Your task to perform on an android device: Open Chrome and go to settings Image 0: 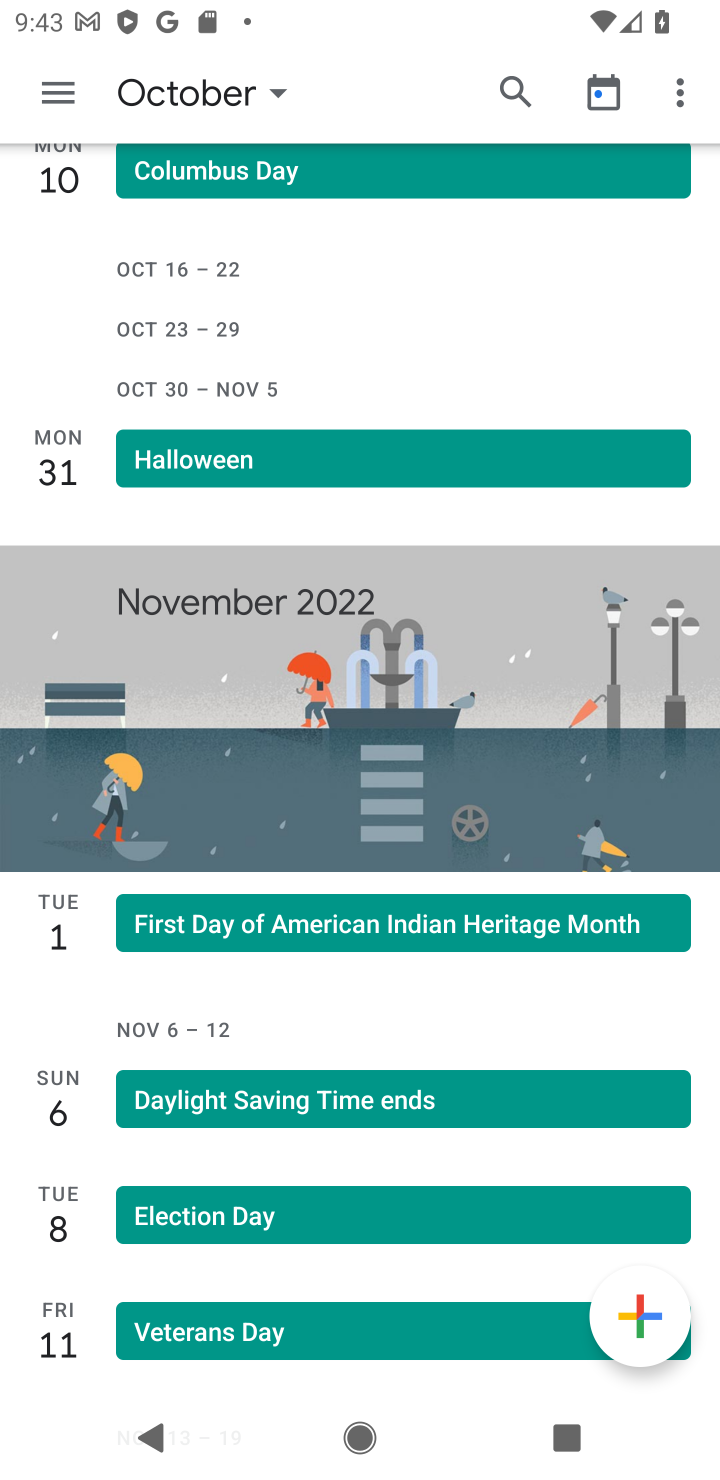
Step 0: press home button
Your task to perform on an android device: Open Chrome and go to settings Image 1: 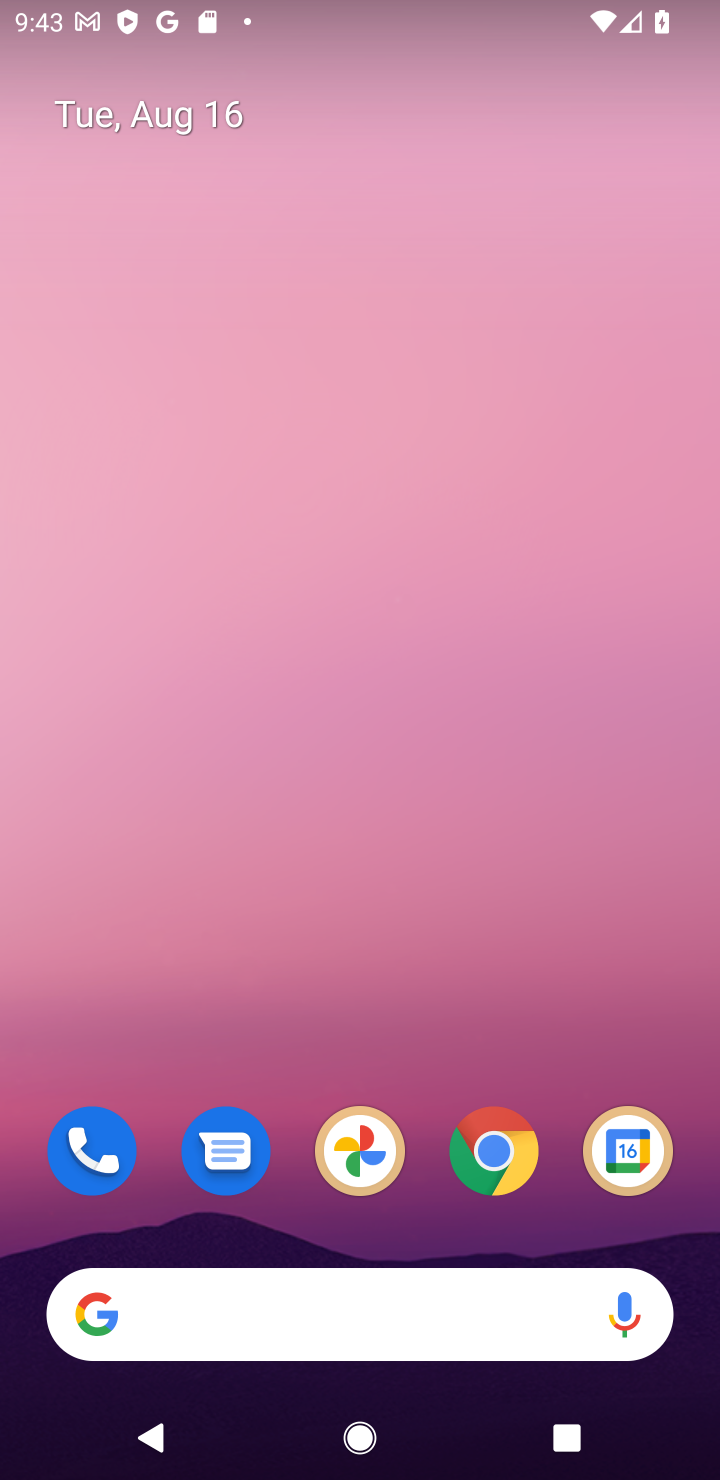
Step 1: click (501, 1172)
Your task to perform on an android device: Open Chrome and go to settings Image 2: 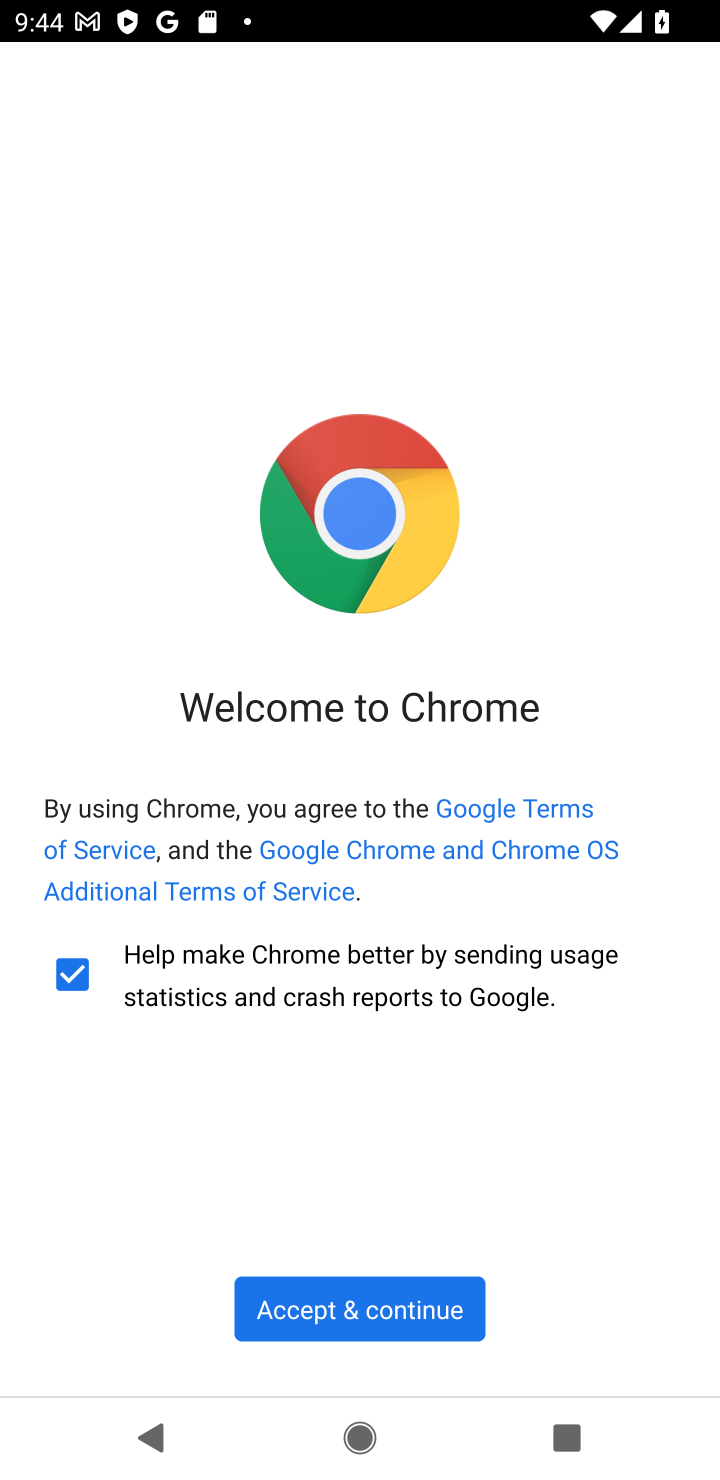
Step 2: click (313, 1330)
Your task to perform on an android device: Open Chrome and go to settings Image 3: 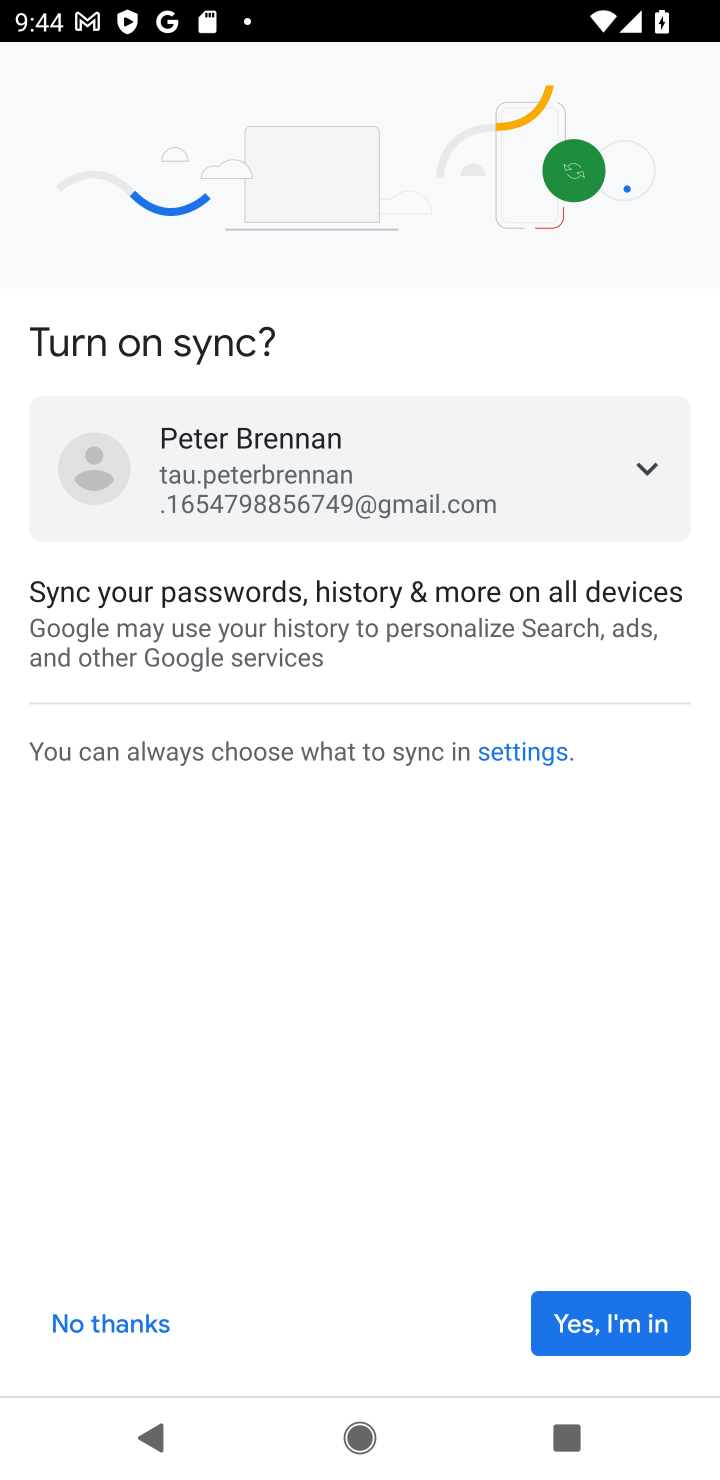
Step 3: click (575, 1324)
Your task to perform on an android device: Open Chrome and go to settings Image 4: 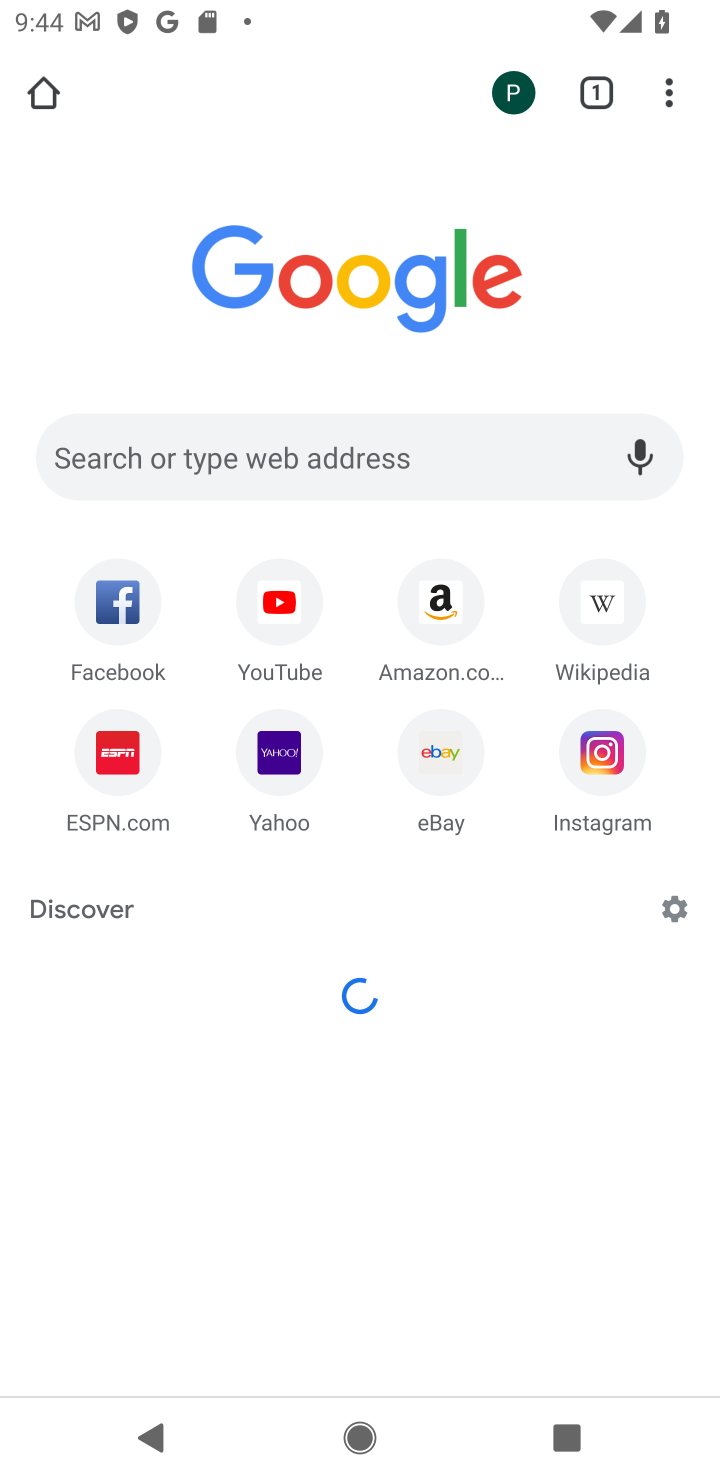
Step 4: click (662, 105)
Your task to perform on an android device: Open Chrome and go to settings Image 5: 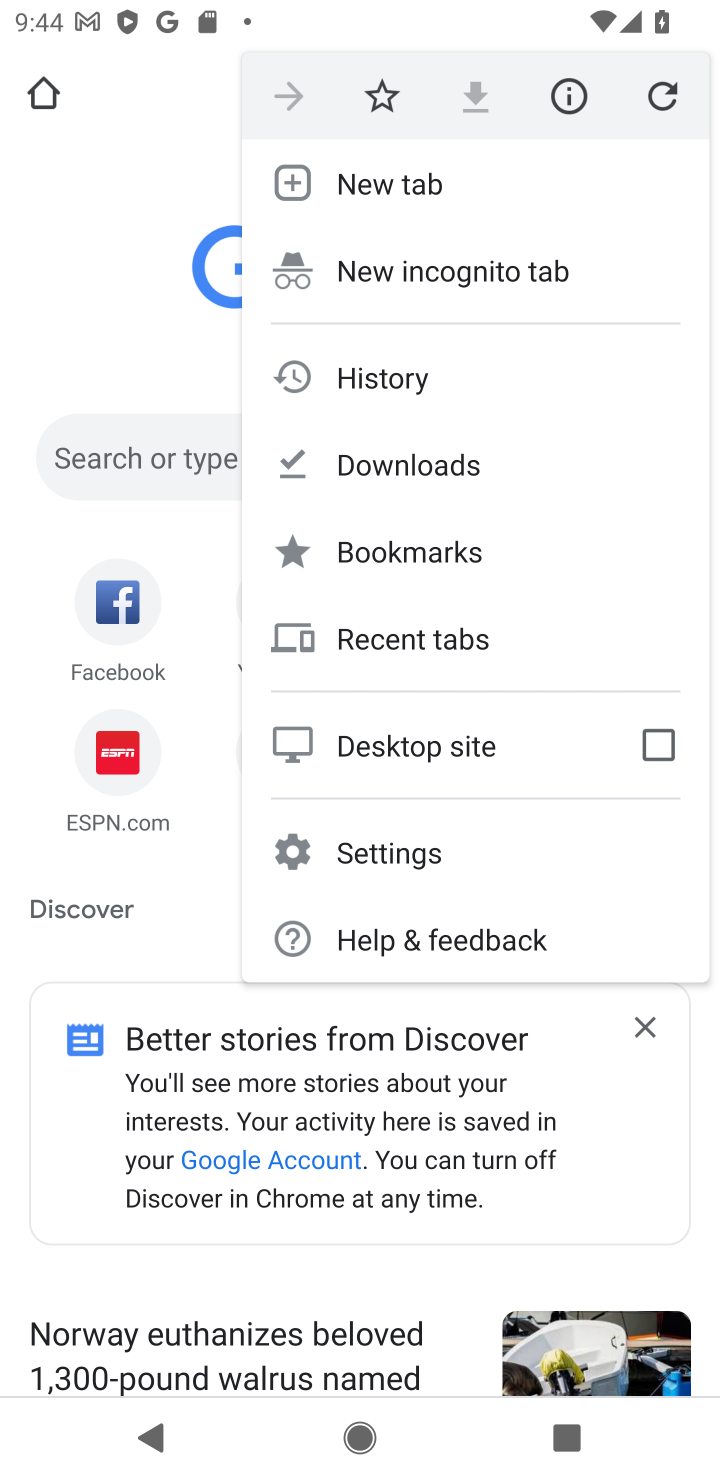
Step 5: click (338, 868)
Your task to perform on an android device: Open Chrome and go to settings Image 6: 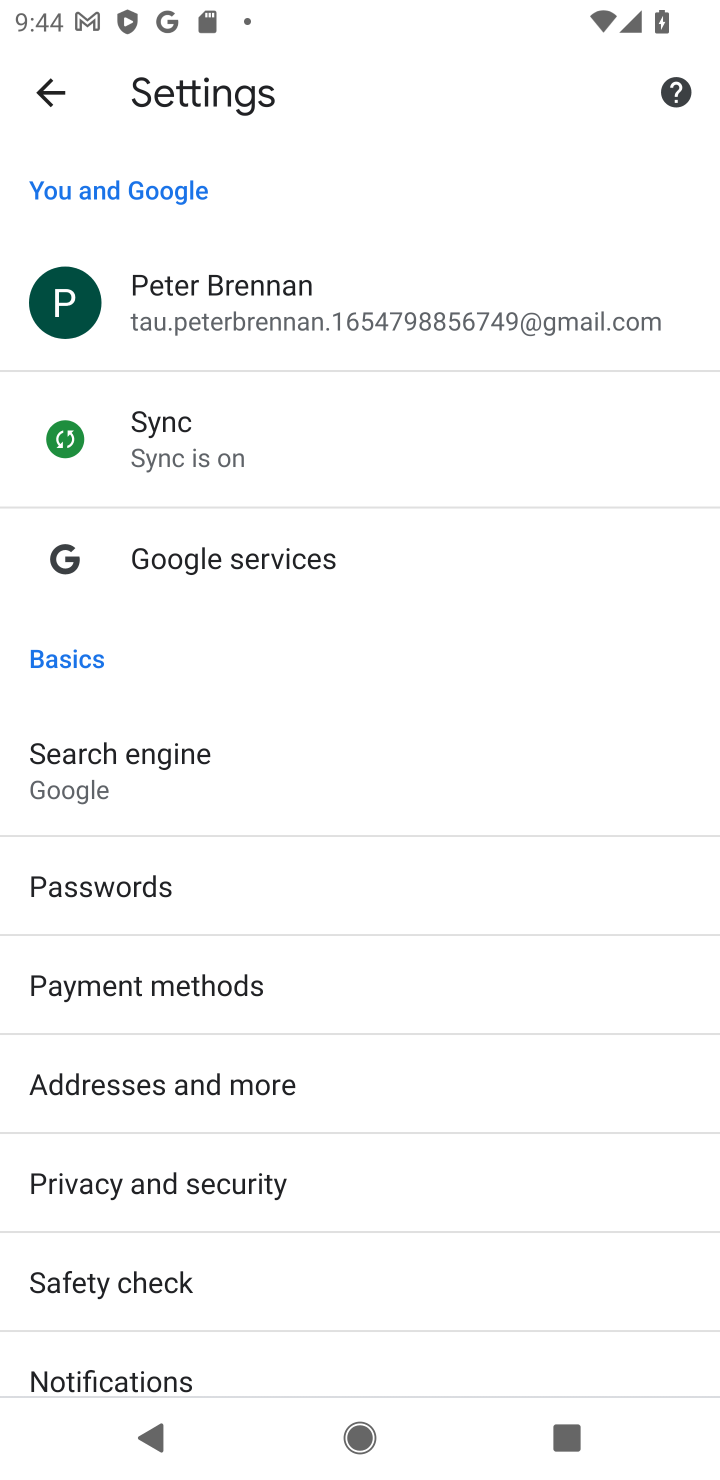
Step 6: task complete